Your task to perform on an android device: open a bookmark in the chrome app Image 0: 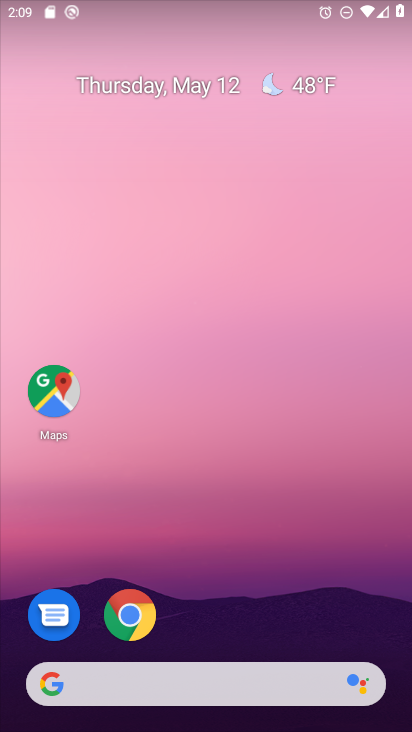
Step 0: drag from (388, 670) to (298, 87)
Your task to perform on an android device: open a bookmark in the chrome app Image 1: 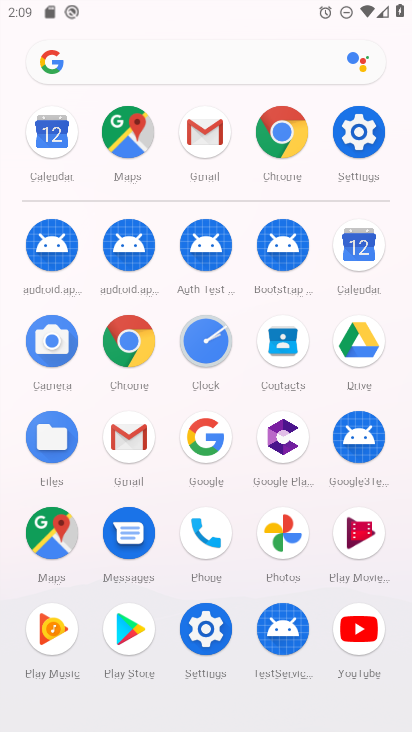
Step 1: click (137, 328)
Your task to perform on an android device: open a bookmark in the chrome app Image 2: 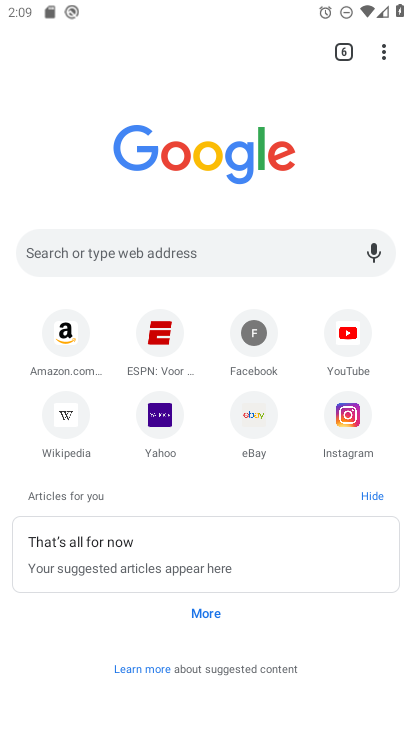
Step 2: task complete